Your task to perform on an android device: Open eBay Image 0: 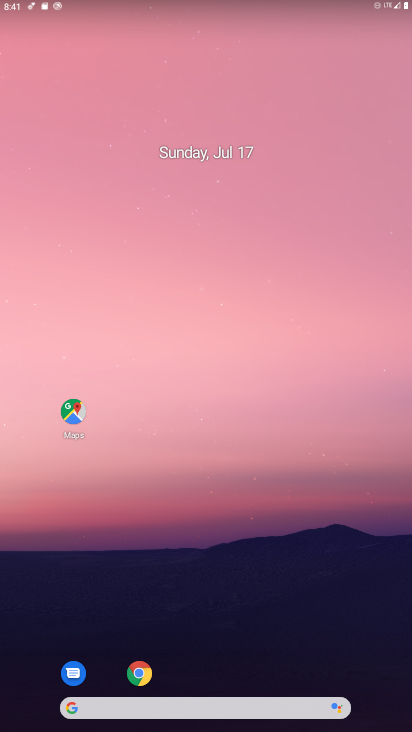
Step 0: click (144, 672)
Your task to perform on an android device: Open eBay Image 1: 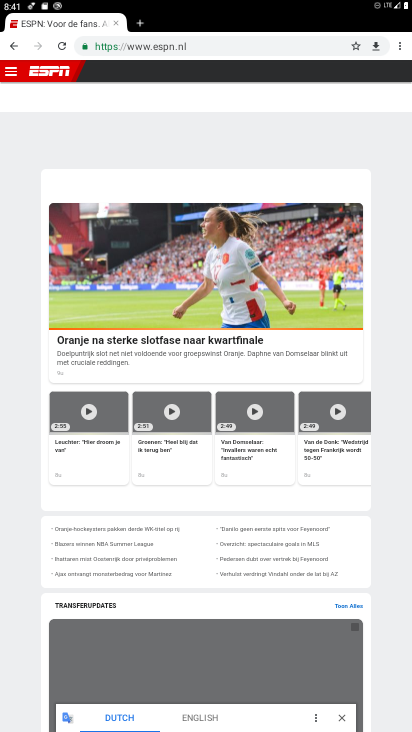
Step 1: click (260, 40)
Your task to perform on an android device: Open eBay Image 2: 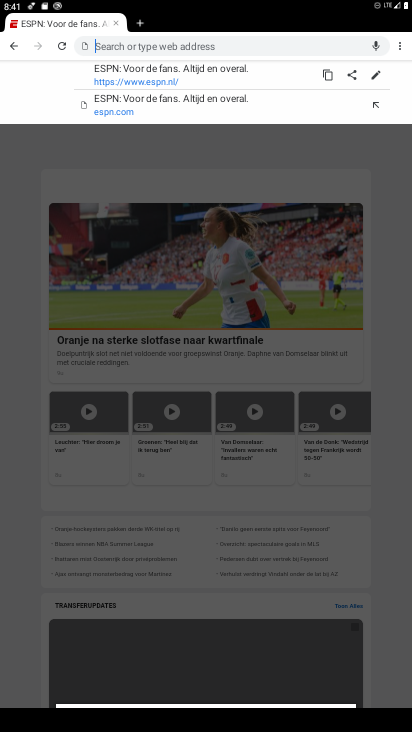
Step 2: type "ebay"
Your task to perform on an android device: Open eBay Image 3: 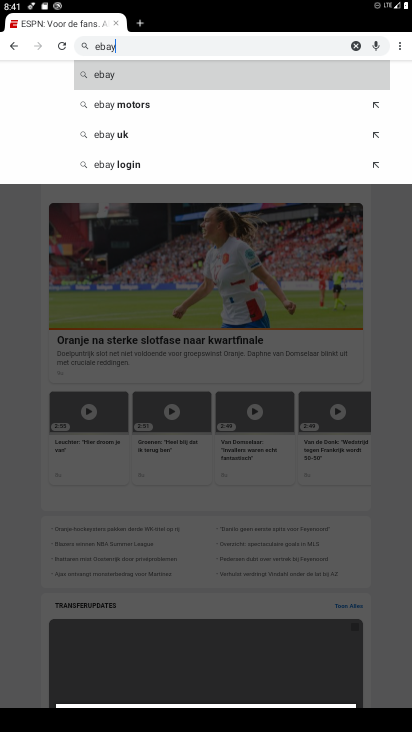
Step 3: click (194, 70)
Your task to perform on an android device: Open eBay Image 4: 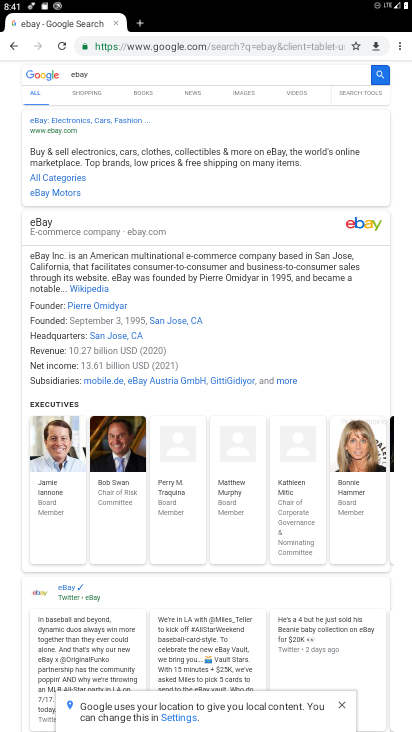
Step 4: click (75, 118)
Your task to perform on an android device: Open eBay Image 5: 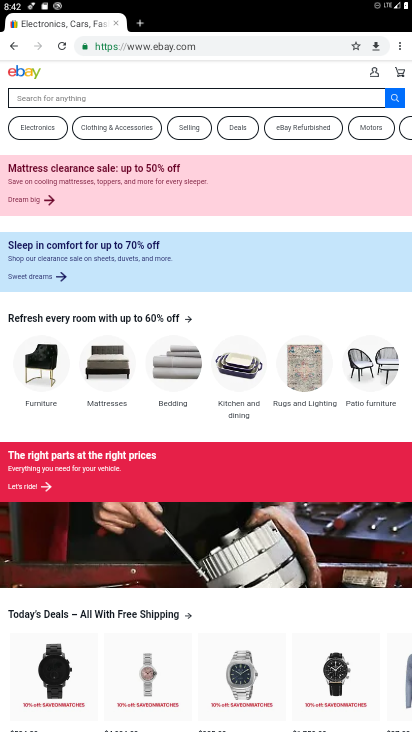
Step 5: task complete